Your task to perform on an android device: open the mobile data screen to see how much data has been used Image 0: 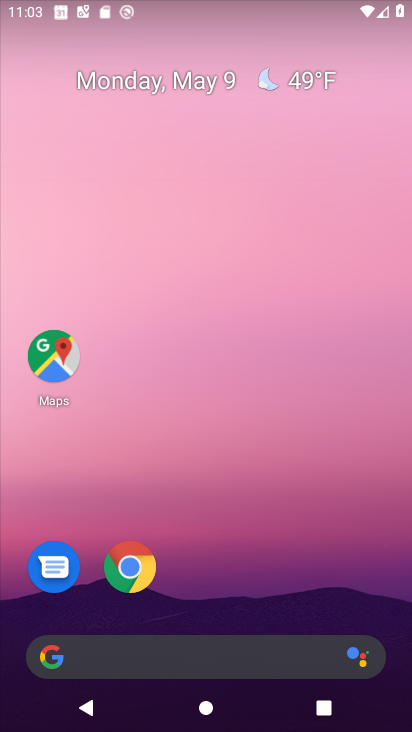
Step 0: drag from (220, 585) to (210, 215)
Your task to perform on an android device: open the mobile data screen to see how much data has been used Image 1: 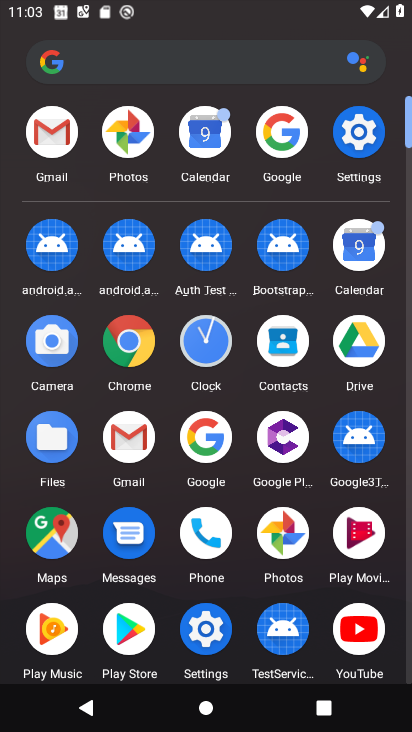
Step 1: click (341, 126)
Your task to perform on an android device: open the mobile data screen to see how much data has been used Image 2: 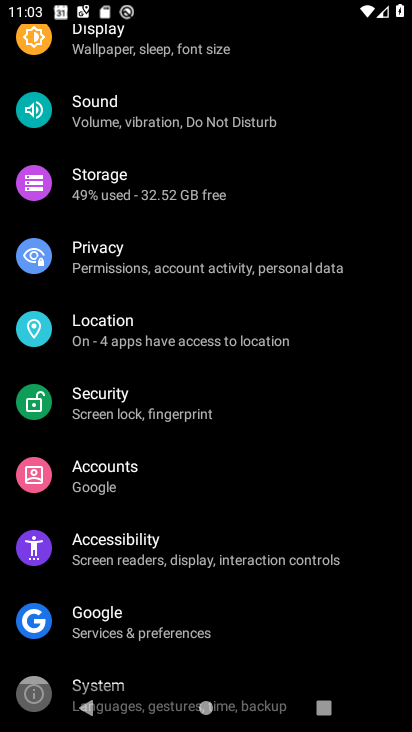
Step 2: drag from (182, 45) to (182, 506)
Your task to perform on an android device: open the mobile data screen to see how much data has been used Image 3: 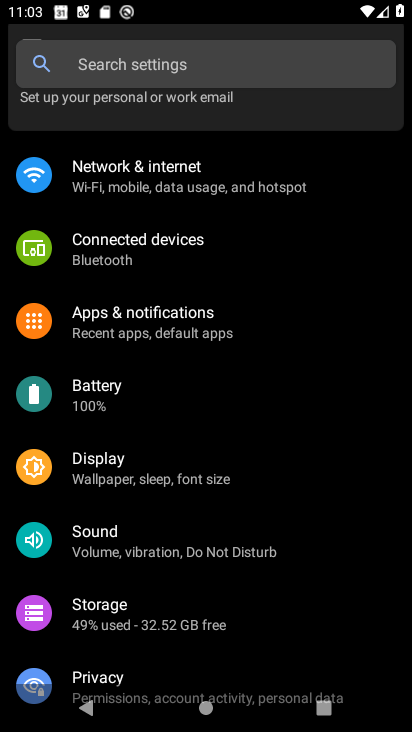
Step 3: click (141, 185)
Your task to perform on an android device: open the mobile data screen to see how much data has been used Image 4: 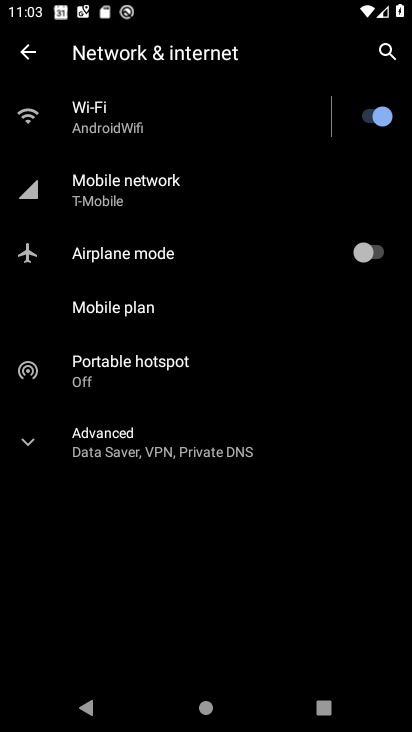
Step 4: click (119, 202)
Your task to perform on an android device: open the mobile data screen to see how much data has been used Image 5: 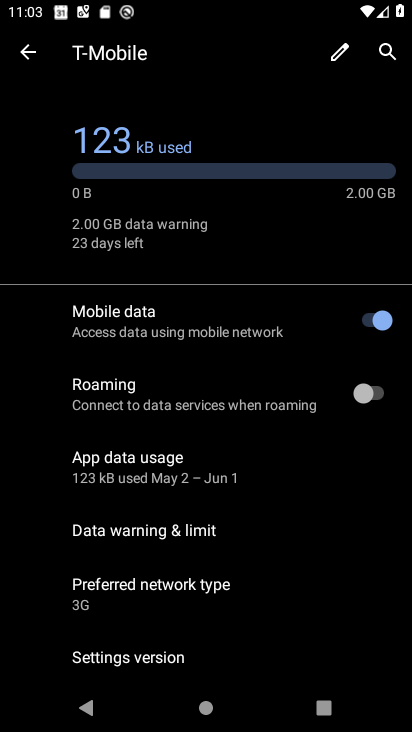
Step 5: click (162, 474)
Your task to perform on an android device: open the mobile data screen to see how much data has been used Image 6: 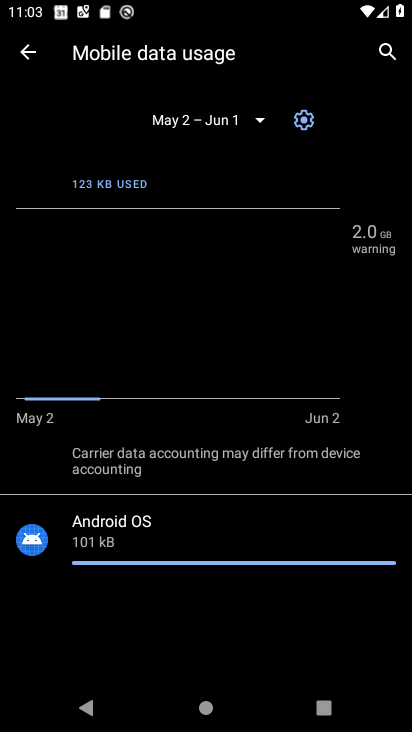
Step 6: task complete